Your task to perform on an android device: Is it going to rain this weekend? Image 0: 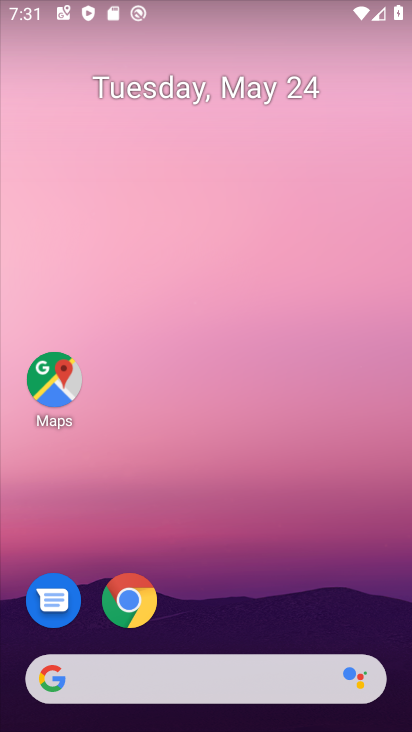
Step 0: click (160, 675)
Your task to perform on an android device: Is it going to rain this weekend? Image 1: 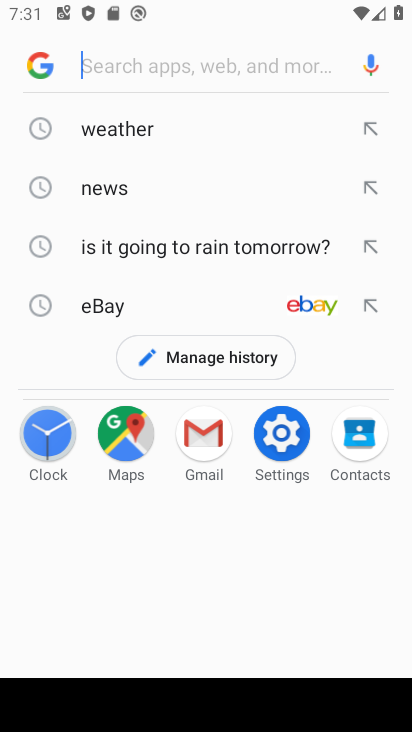
Step 1: click (149, 122)
Your task to perform on an android device: Is it going to rain this weekend? Image 2: 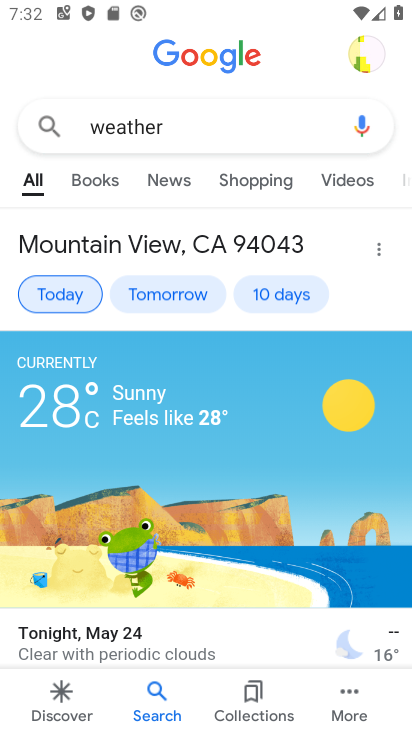
Step 2: click (265, 296)
Your task to perform on an android device: Is it going to rain this weekend? Image 3: 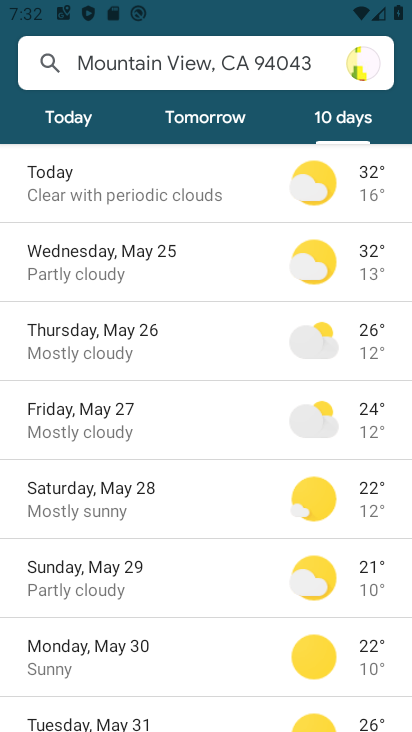
Step 3: task complete